Your task to perform on an android device: turn on the 12-hour format for clock Image 0: 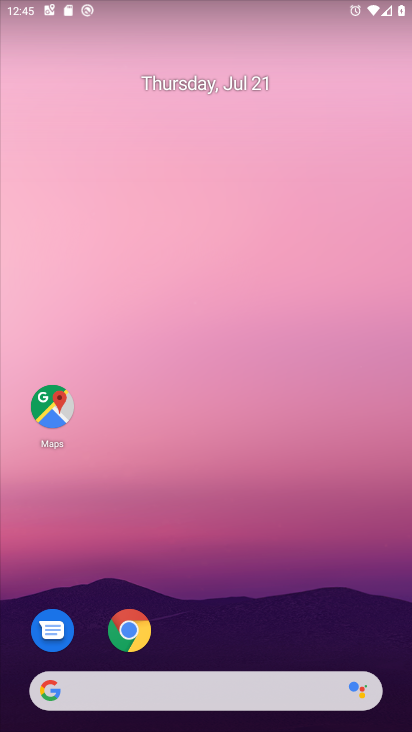
Step 0: drag from (179, 644) to (387, 262)
Your task to perform on an android device: turn on the 12-hour format for clock Image 1: 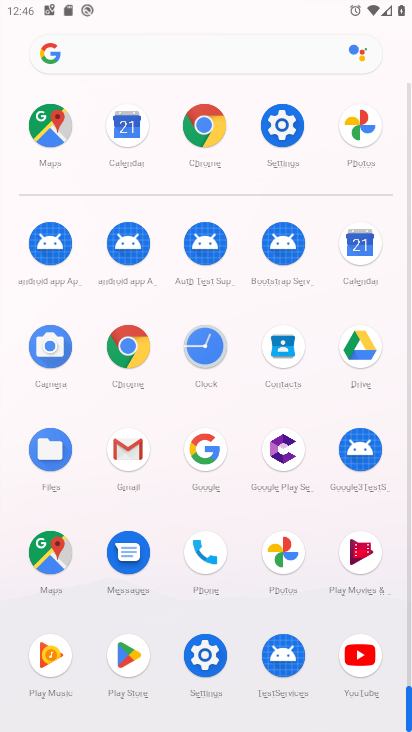
Step 1: click (206, 337)
Your task to perform on an android device: turn on the 12-hour format for clock Image 2: 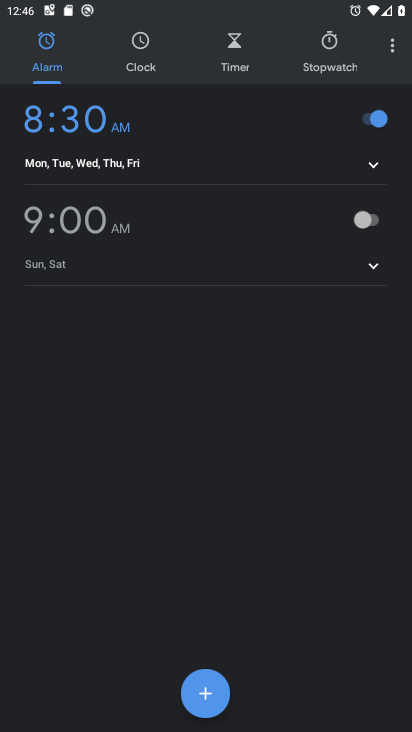
Step 2: click (398, 54)
Your task to perform on an android device: turn on the 12-hour format for clock Image 3: 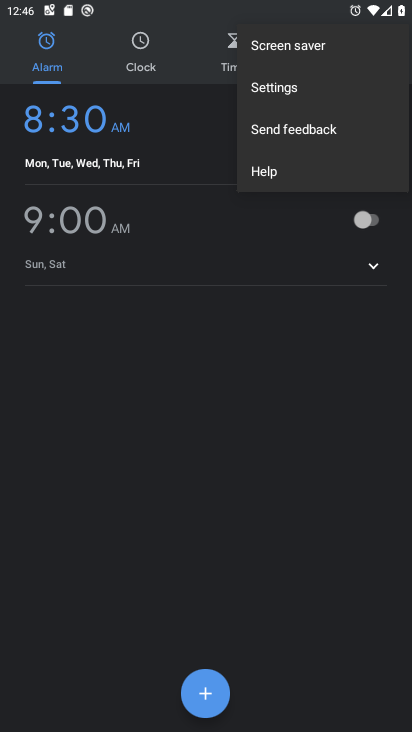
Step 3: click (294, 89)
Your task to perform on an android device: turn on the 12-hour format for clock Image 4: 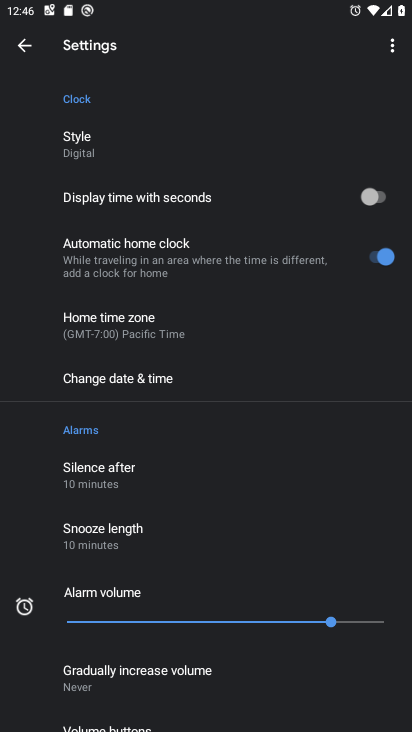
Step 4: click (159, 377)
Your task to perform on an android device: turn on the 12-hour format for clock Image 5: 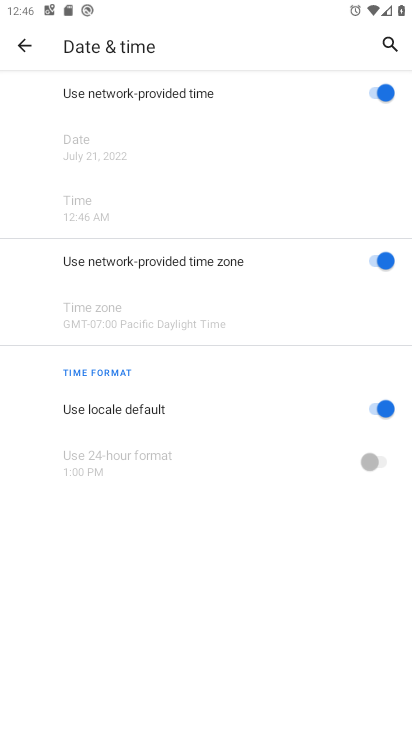
Step 5: task complete